Your task to perform on an android device: Is it going to rain this weekend? Image 0: 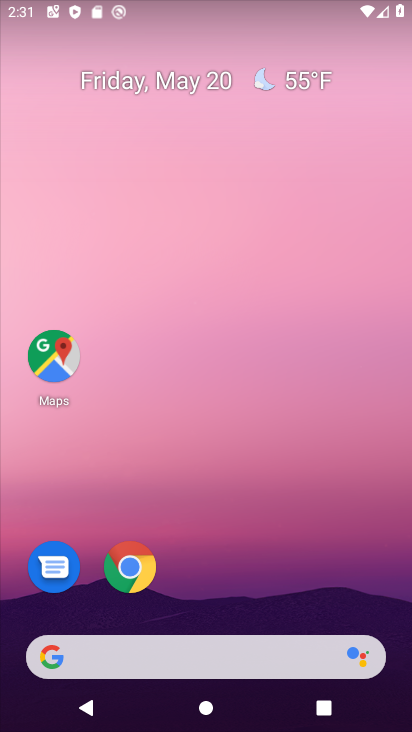
Step 0: drag from (147, 607) to (157, 201)
Your task to perform on an android device: Is it going to rain this weekend? Image 1: 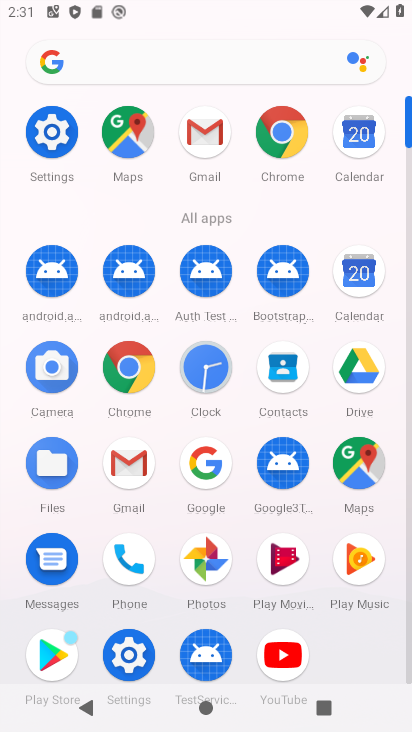
Step 1: click (213, 469)
Your task to perform on an android device: Is it going to rain this weekend? Image 2: 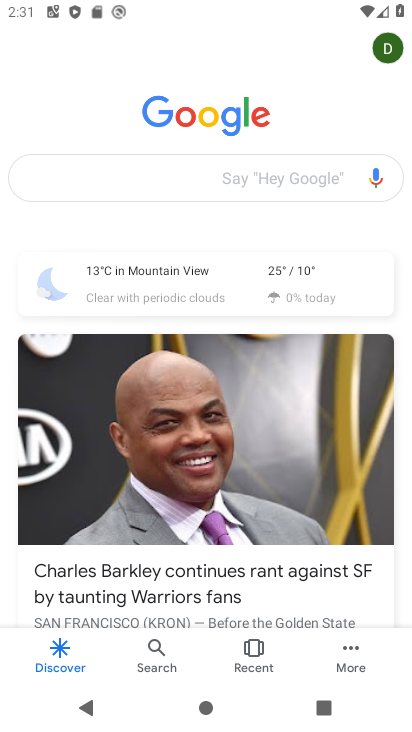
Step 2: click (170, 185)
Your task to perform on an android device: Is it going to rain this weekend? Image 3: 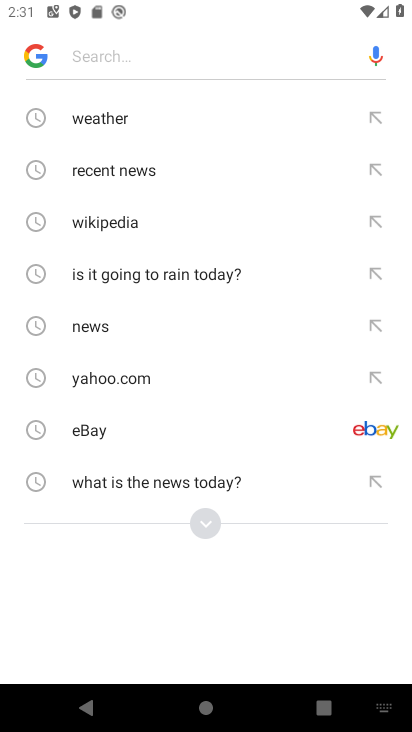
Step 3: click (122, 277)
Your task to perform on an android device: Is it going to rain this weekend? Image 4: 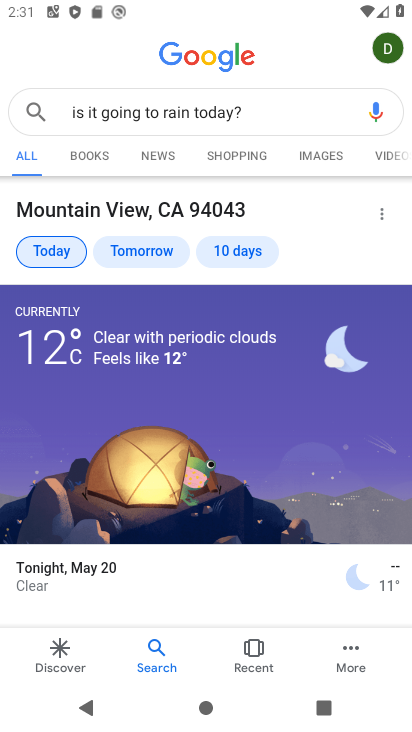
Step 4: task complete